Your task to perform on an android device: Search for Italian restaurants on Maps Image 0: 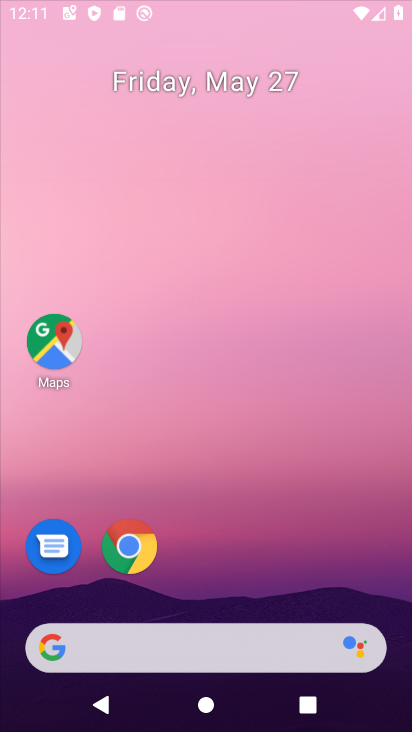
Step 0: drag from (272, 576) to (130, 7)
Your task to perform on an android device: Search for Italian restaurants on Maps Image 1: 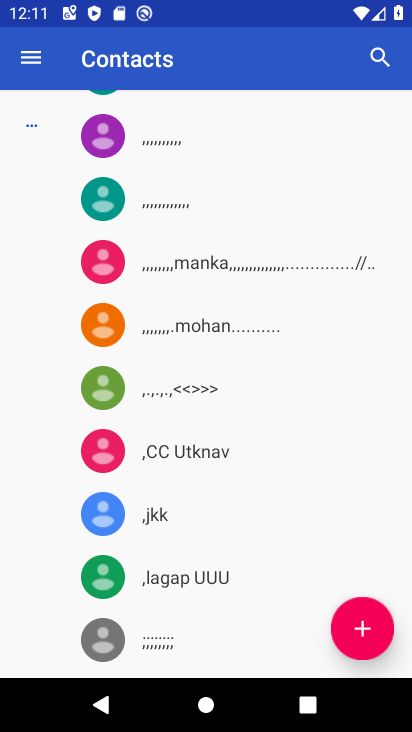
Step 1: press home button
Your task to perform on an android device: Search for Italian restaurants on Maps Image 2: 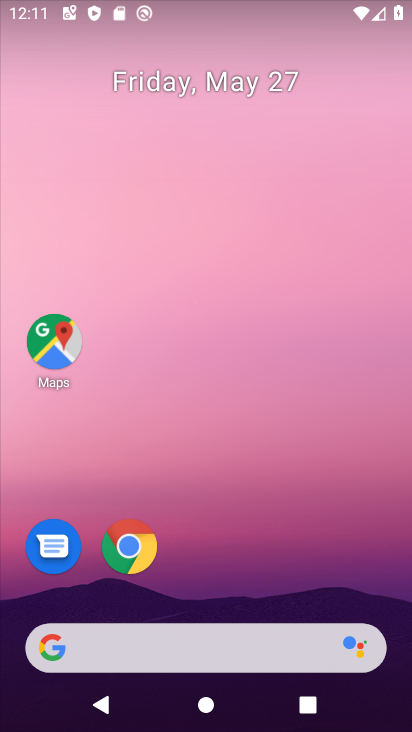
Step 2: click (50, 347)
Your task to perform on an android device: Search for Italian restaurants on Maps Image 3: 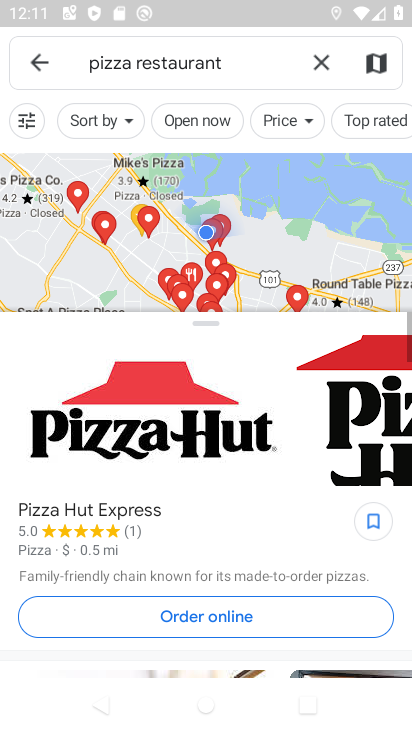
Step 3: click (316, 60)
Your task to perform on an android device: Search for Italian restaurants on Maps Image 4: 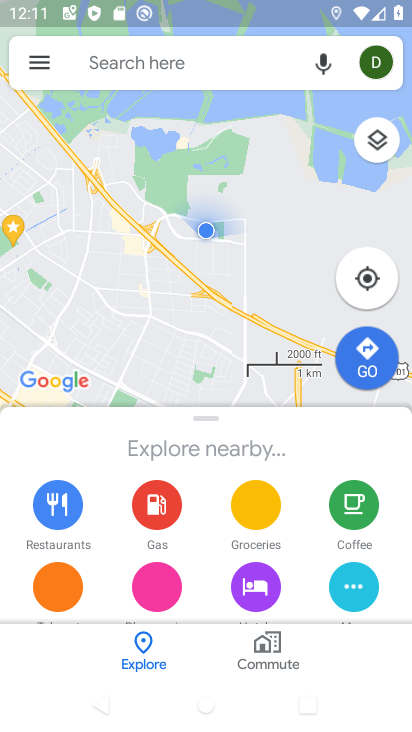
Step 4: click (129, 51)
Your task to perform on an android device: Search for Italian restaurants on Maps Image 5: 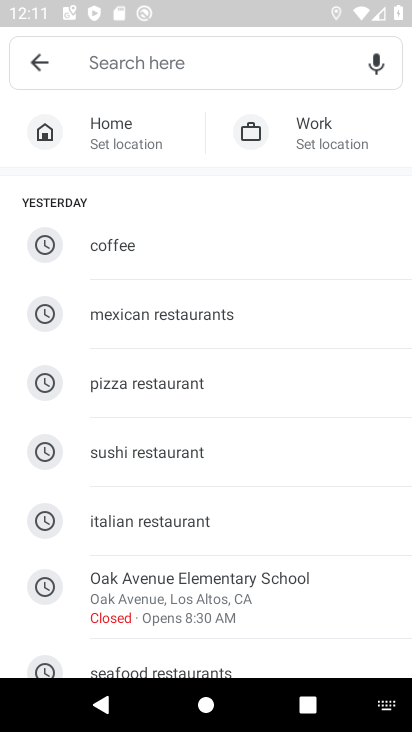
Step 5: click (166, 515)
Your task to perform on an android device: Search for Italian restaurants on Maps Image 6: 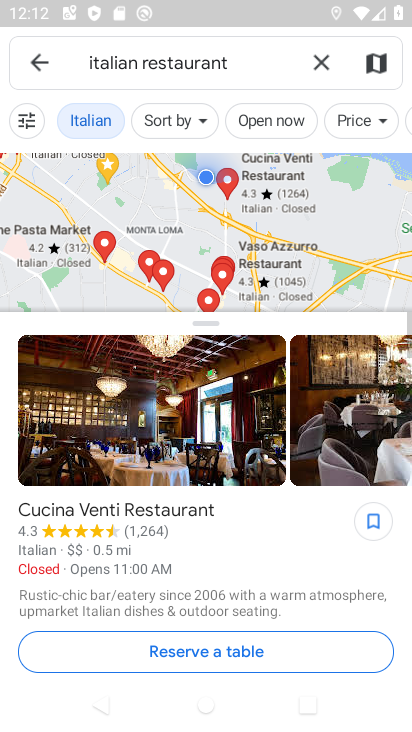
Step 6: task complete